Your task to perform on an android device: Open the phone app and click the voicemail tab. Image 0: 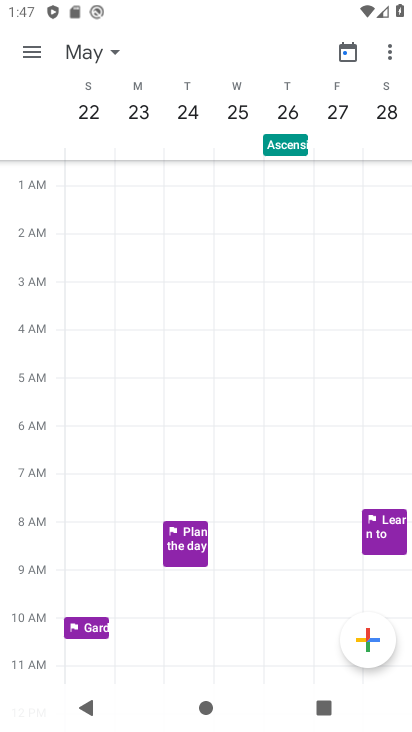
Step 0: press home button
Your task to perform on an android device: Open the phone app and click the voicemail tab. Image 1: 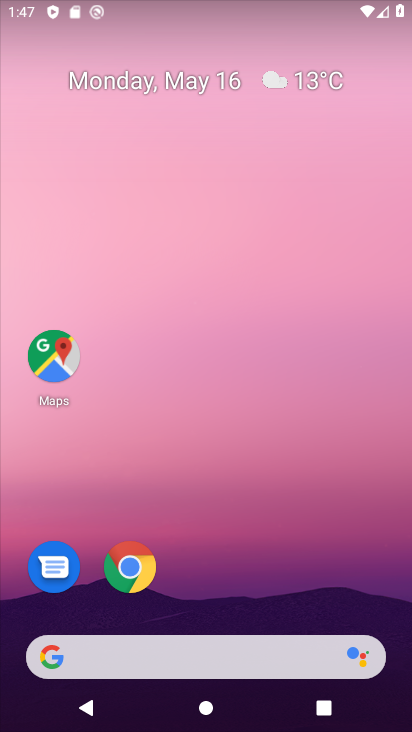
Step 1: drag from (217, 459) to (166, 23)
Your task to perform on an android device: Open the phone app and click the voicemail tab. Image 2: 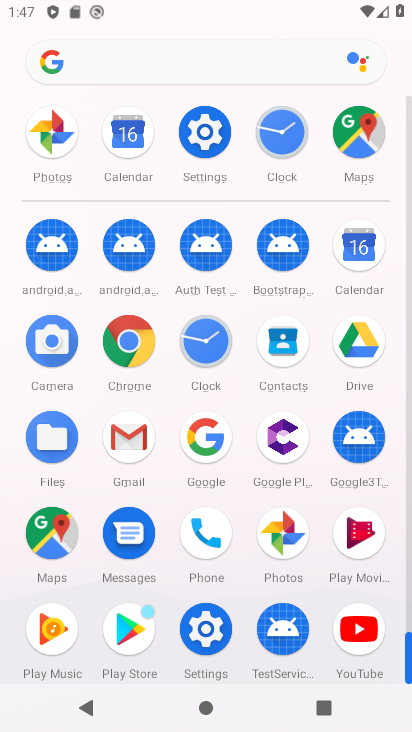
Step 2: click (196, 524)
Your task to perform on an android device: Open the phone app and click the voicemail tab. Image 3: 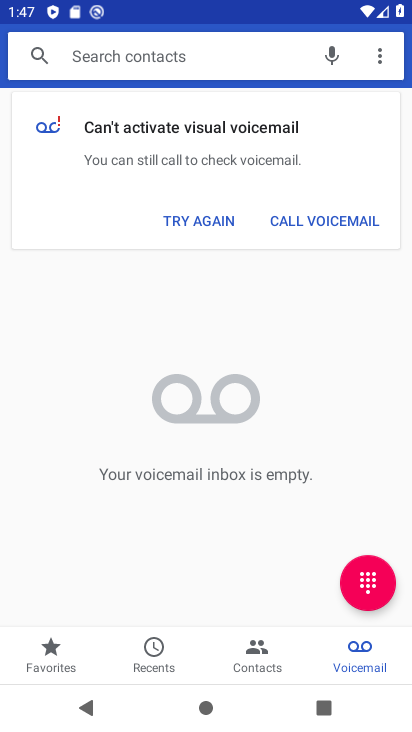
Step 3: click (362, 642)
Your task to perform on an android device: Open the phone app and click the voicemail tab. Image 4: 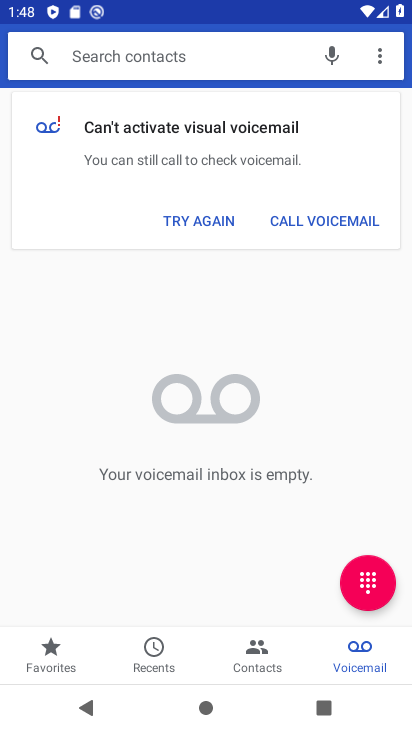
Step 4: task complete